Your task to perform on an android device: What's the weather going to be tomorrow? Image 0: 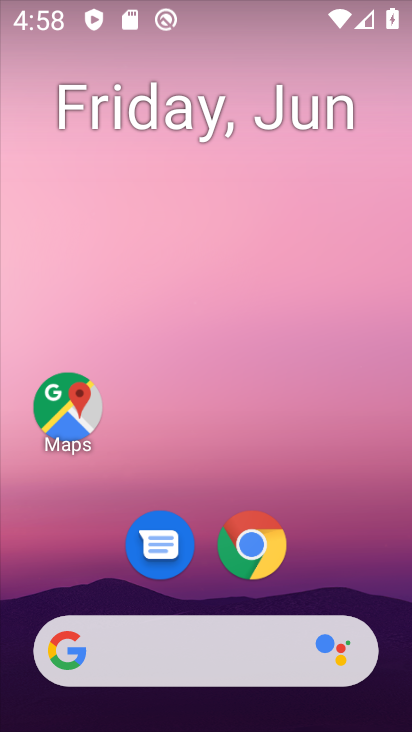
Step 0: drag from (219, 595) to (273, 228)
Your task to perform on an android device: What's the weather going to be tomorrow? Image 1: 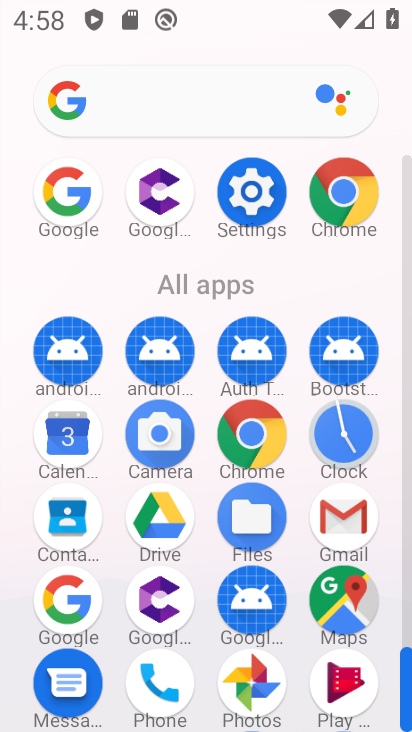
Step 1: click (64, 603)
Your task to perform on an android device: What's the weather going to be tomorrow? Image 2: 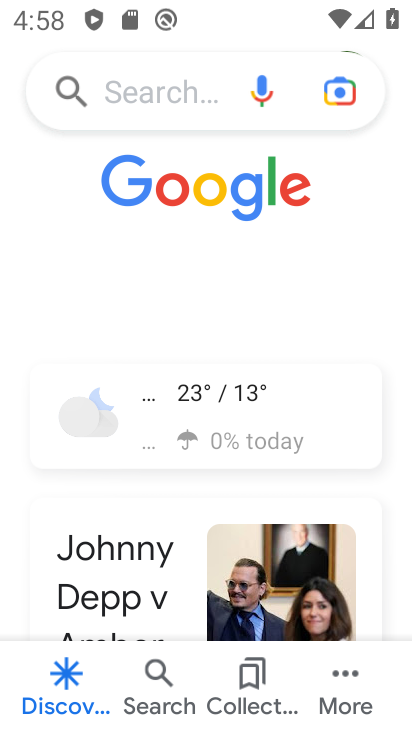
Step 2: click (187, 94)
Your task to perform on an android device: What's the weather going to be tomorrow? Image 3: 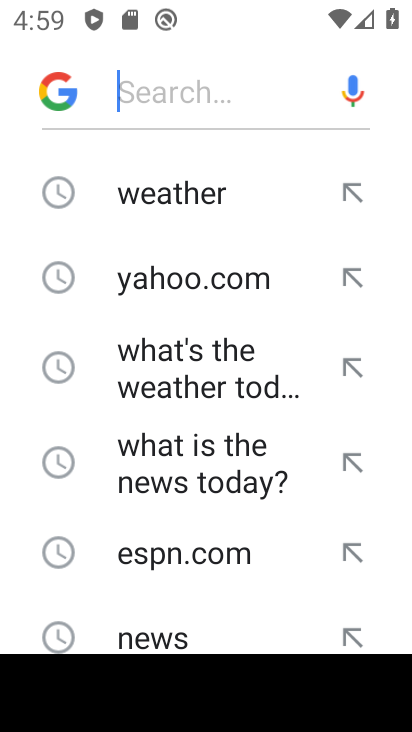
Step 3: click (193, 362)
Your task to perform on an android device: What's the weather going to be tomorrow? Image 4: 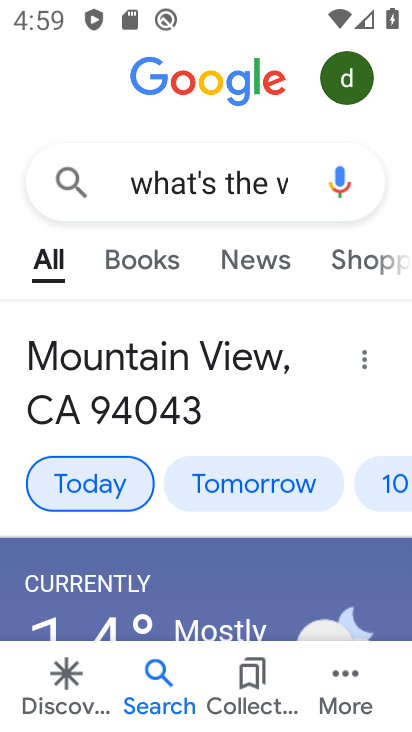
Step 4: task complete